Your task to perform on an android device: add a contact Image 0: 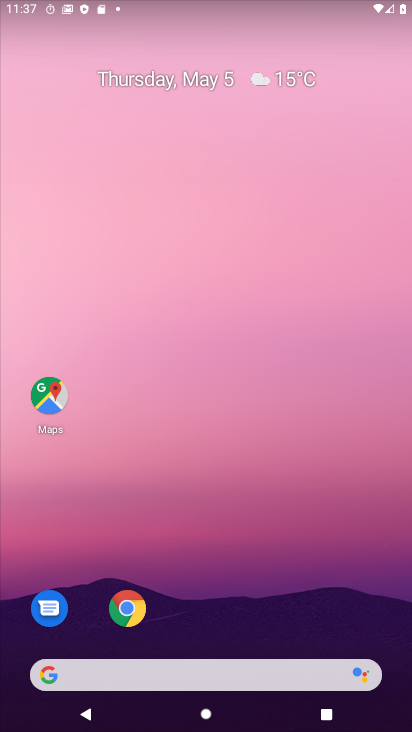
Step 0: drag from (228, 565) to (187, 45)
Your task to perform on an android device: add a contact Image 1: 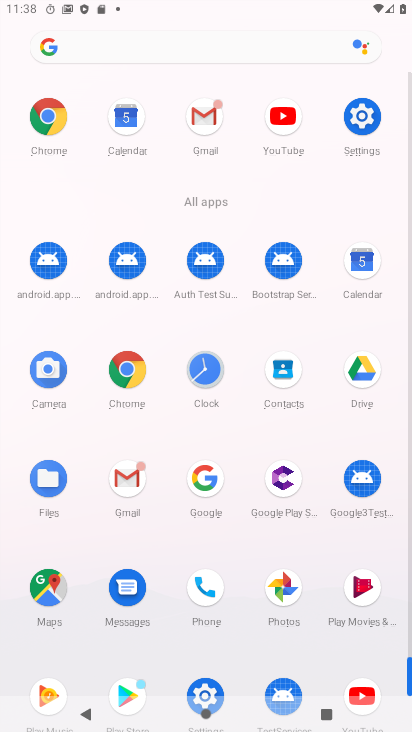
Step 1: click (282, 371)
Your task to perform on an android device: add a contact Image 2: 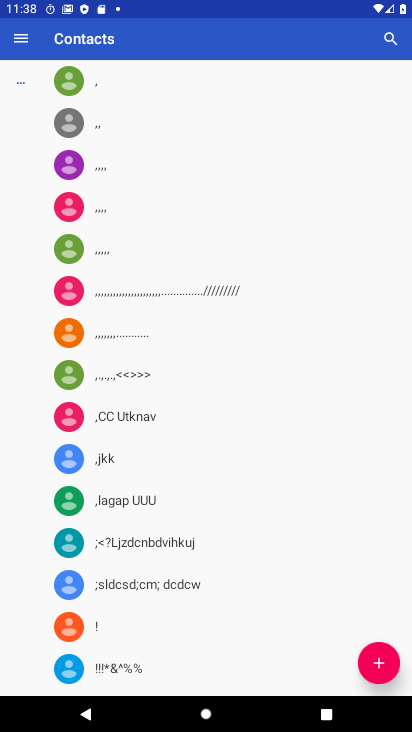
Step 2: click (378, 663)
Your task to perform on an android device: add a contact Image 3: 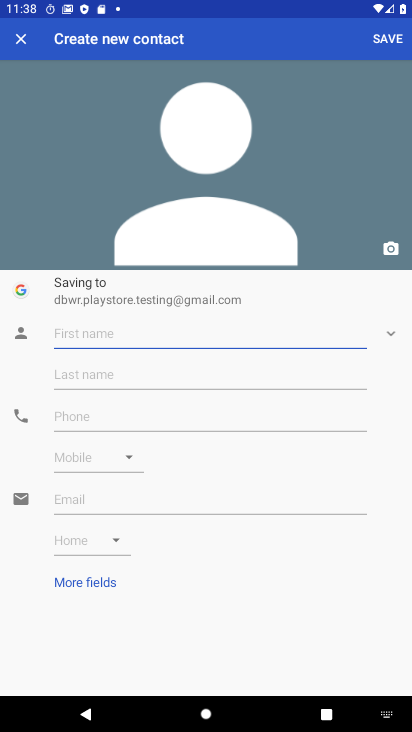
Step 3: click (191, 335)
Your task to perform on an android device: add a contact Image 4: 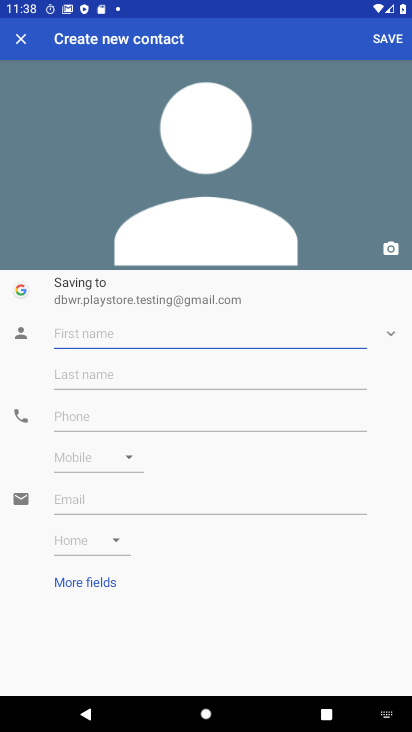
Step 4: type "Abdul"
Your task to perform on an android device: add a contact Image 5: 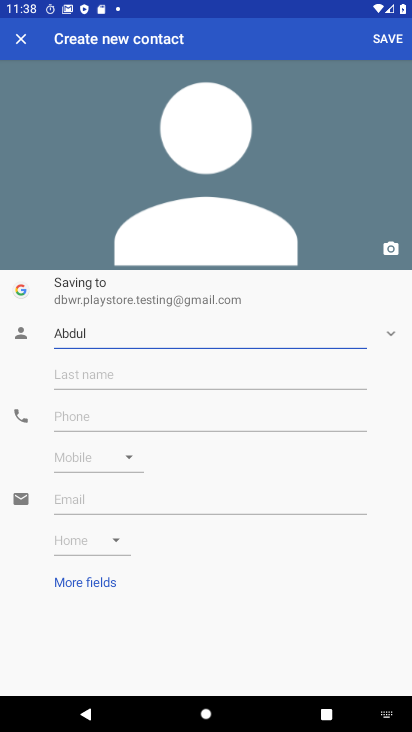
Step 5: click (222, 380)
Your task to perform on an android device: add a contact Image 6: 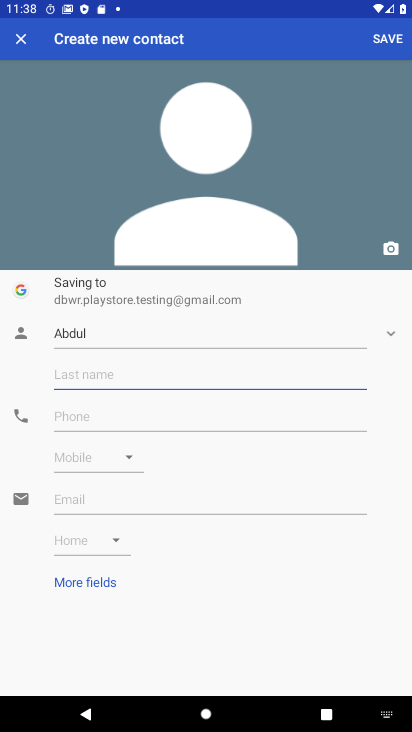
Step 6: type "Mannan"
Your task to perform on an android device: add a contact Image 7: 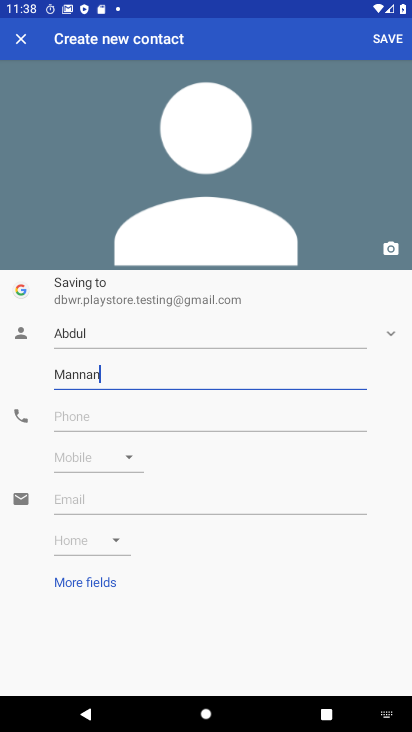
Step 7: click (134, 413)
Your task to perform on an android device: add a contact Image 8: 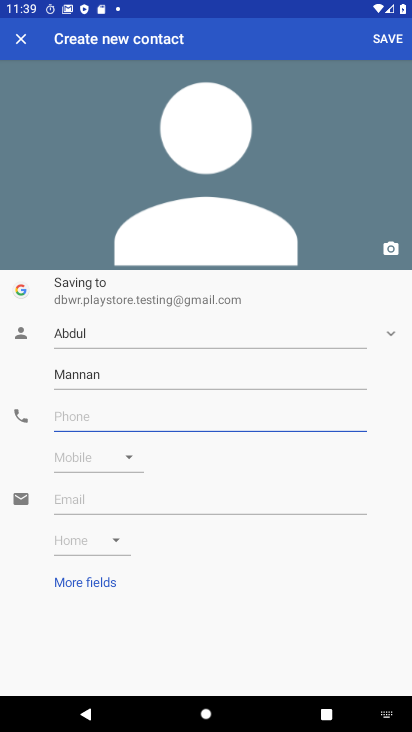
Step 8: type "09812376543"
Your task to perform on an android device: add a contact Image 9: 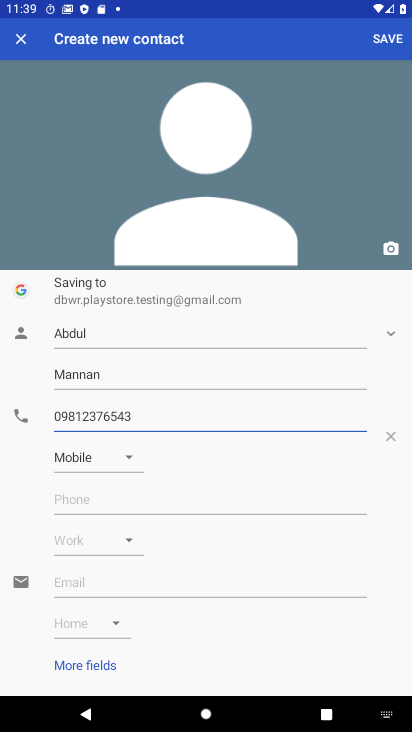
Step 9: click (386, 37)
Your task to perform on an android device: add a contact Image 10: 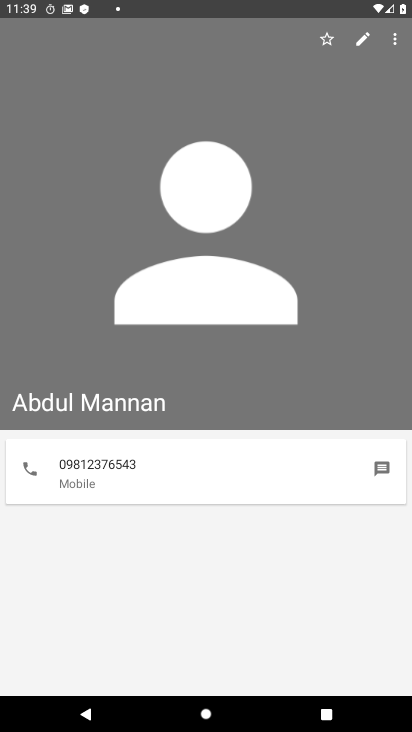
Step 10: task complete